Your task to perform on an android device: toggle show notifications on the lock screen Image 0: 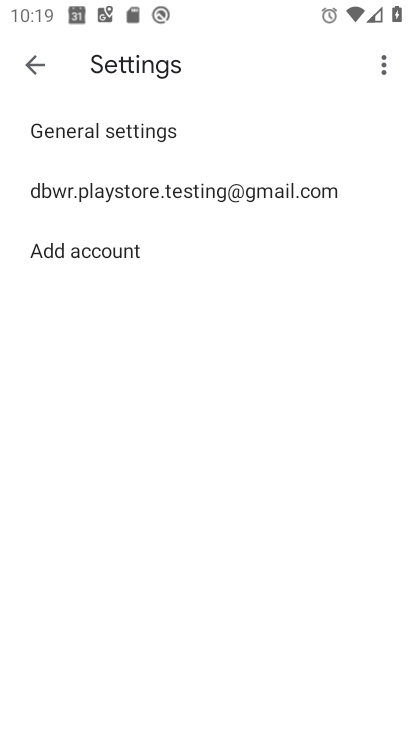
Step 0: press home button
Your task to perform on an android device: toggle show notifications on the lock screen Image 1: 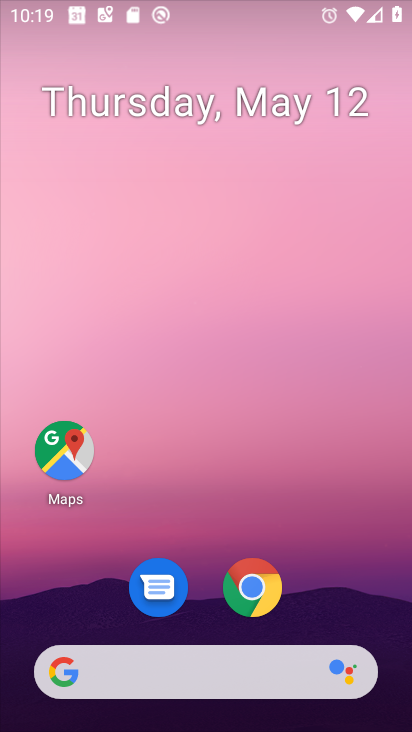
Step 1: drag from (398, 645) to (280, 44)
Your task to perform on an android device: toggle show notifications on the lock screen Image 2: 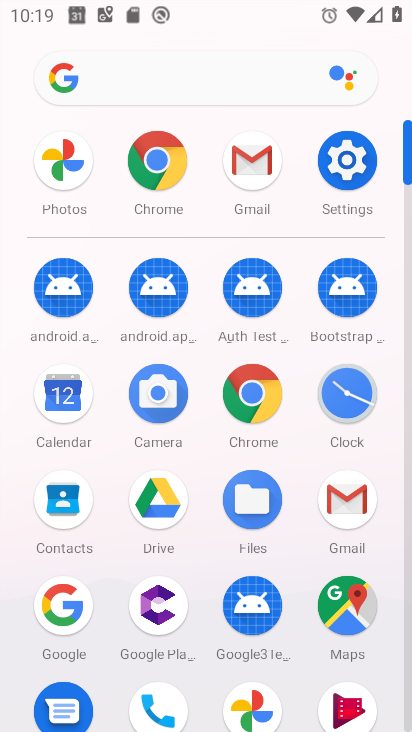
Step 2: click (355, 172)
Your task to perform on an android device: toggle show notifications on the lock screen Image 3: 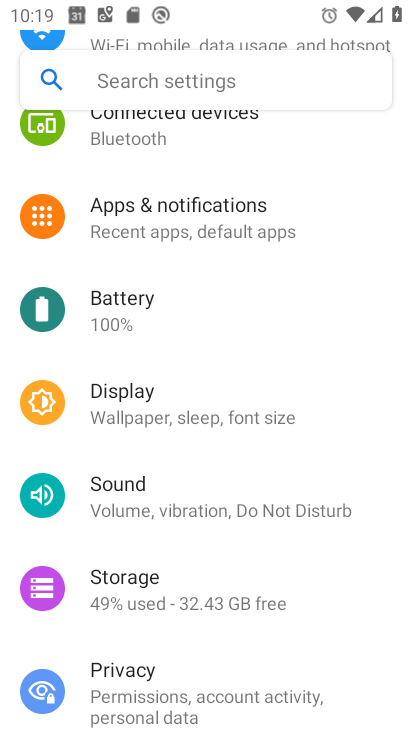
Step 3: click (285, 224)
Your task to perform on an android device: toggle show notifications on the lock screen Image 4: 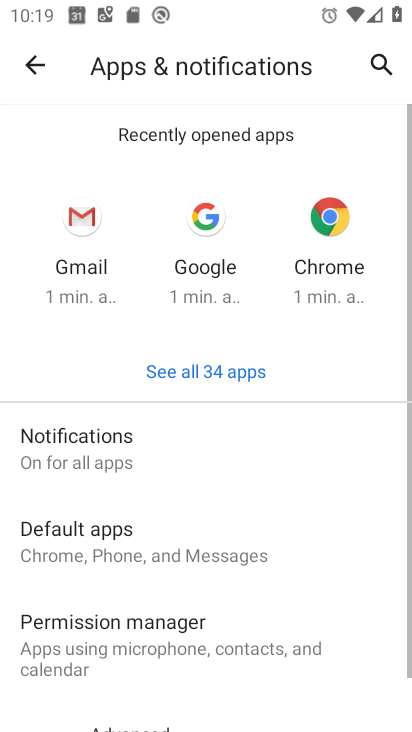
Step 4: click (174, 460)
Your task to perform on an android device: toggle show notifications on the lock screen Image 5: 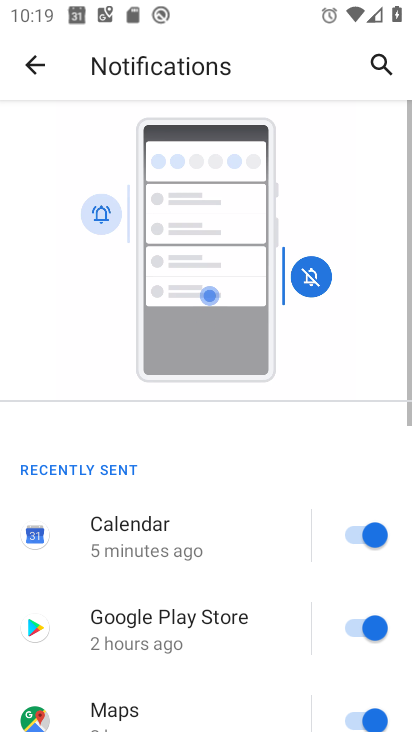
Step 5: drag from (194, 642) to (190, 58)
Your task to perform on an android device: toggle show notifications on the lock screen Image 6: 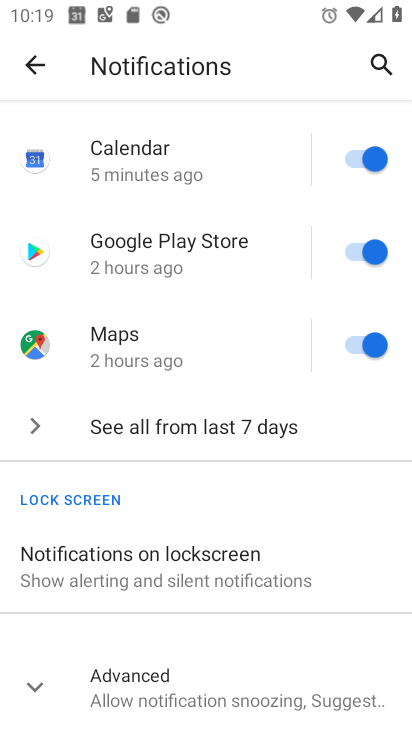
Step 6: click (184, 599)
Your task to perform on an android device: toggle show notifications on the lock screen Image 7: 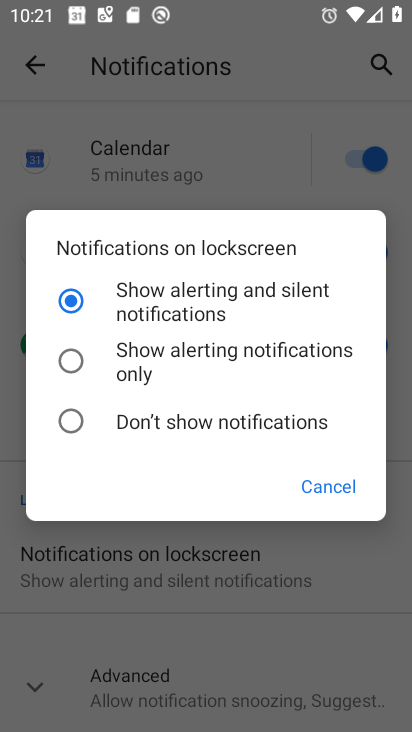
Step 7: click (170, 379)
Your task to perform on an android device: toggle show notifications on the lock screen Image 8: 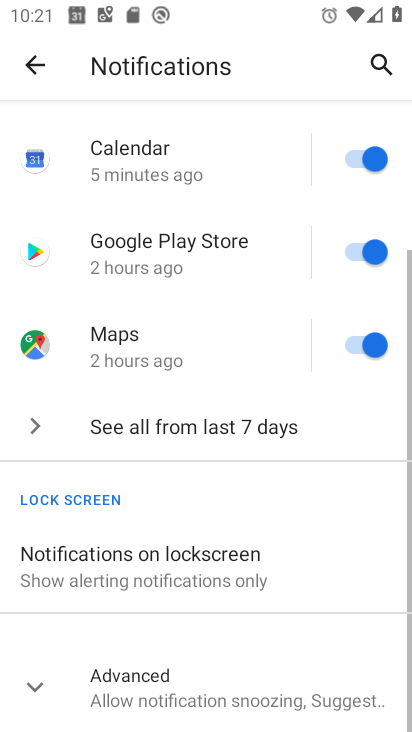
Step 8: task complete